Your task to perform on an android device: empty trash in google photos Image 0: 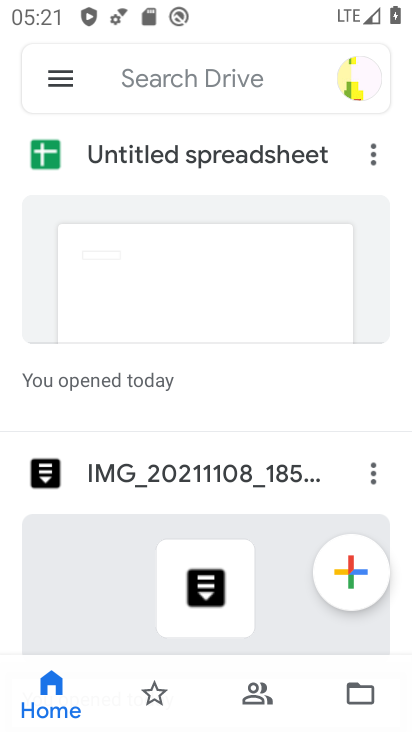
Step 0: press home button
Your task to perform on an android device: empty trash in google photos Image 1: 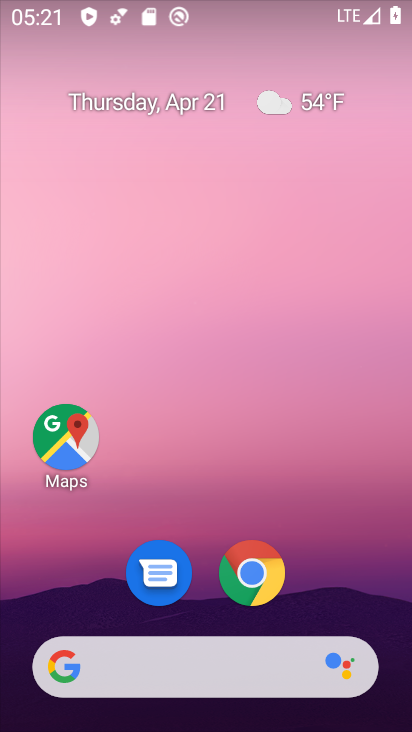
Step 1: drag from (361, 601) to (293, 234)
Your task to perform on an android device: empty trash in google photos Image 2: 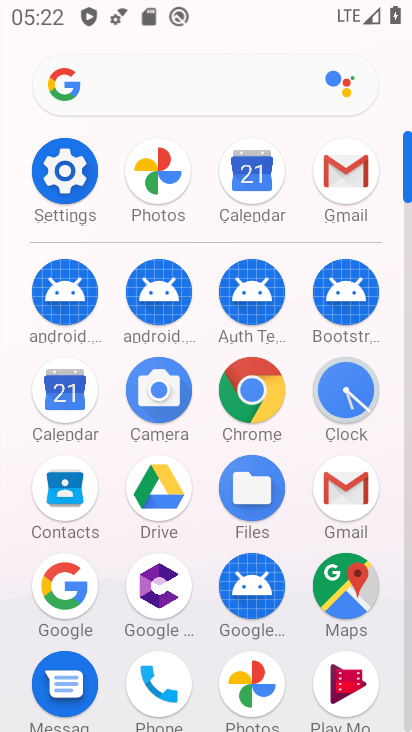
Step 2: click (406, 701)
Your task to perform on an android device: empty trash in google photos Image 3: 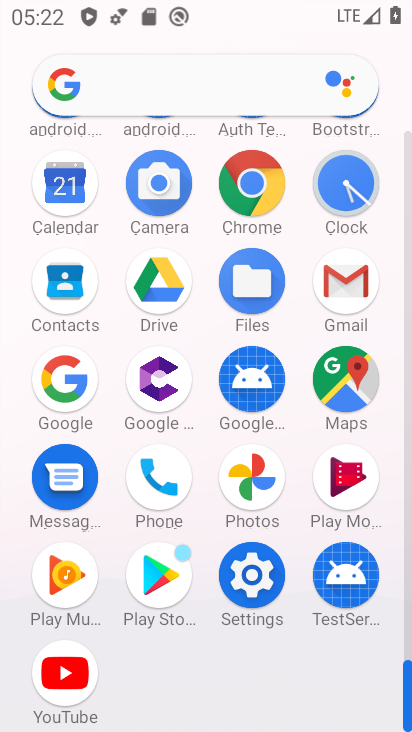
Step 3: click (251, 475)
Your task to perform on an android device: empty trash in google photos Image 4: 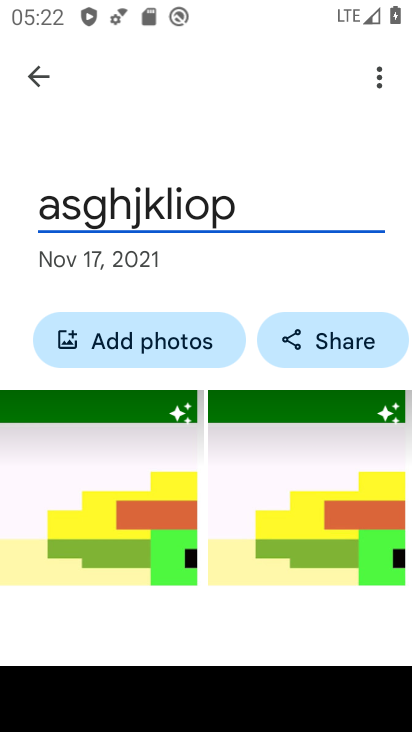
Step 4: press back button
Your task to perform on an android device: empty trash in google photos Image 5: 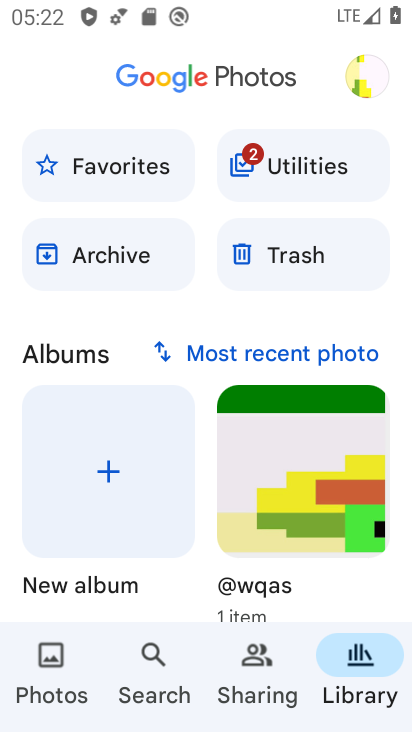
Step 5: click (278, 258)
Your task to perform on an android device: empty trash in google photos Image 6: 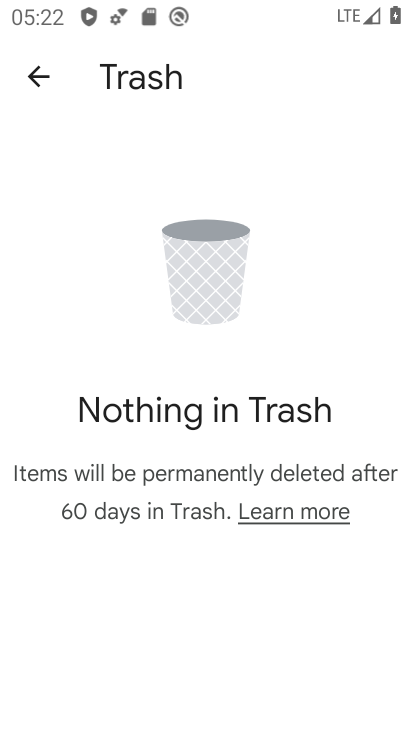
Step 6: task complete